Your task to perform on an android device: turn off improve location accuracy Image 0: 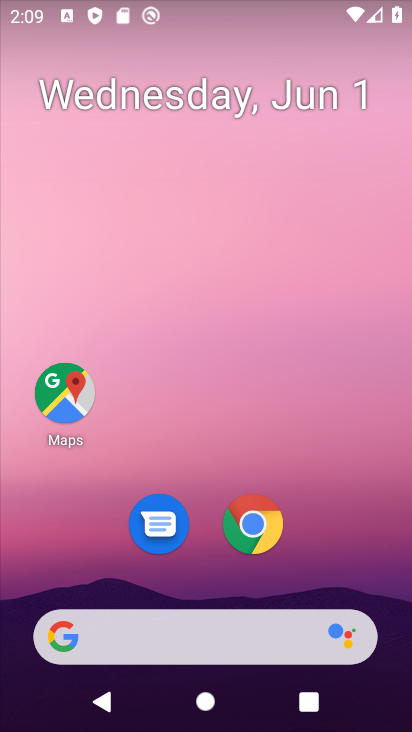
Step 0: drag from (336, 539) to (284, 63)
Your task to perform on an android device: turn off improve location accuracy Image 1: 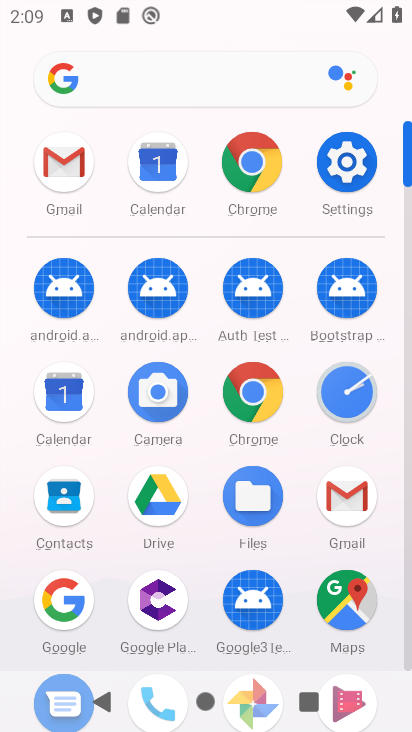
Step 1: click (348, 159)
Your task to perform on an android device: turn off improve location accuracy Image 2: 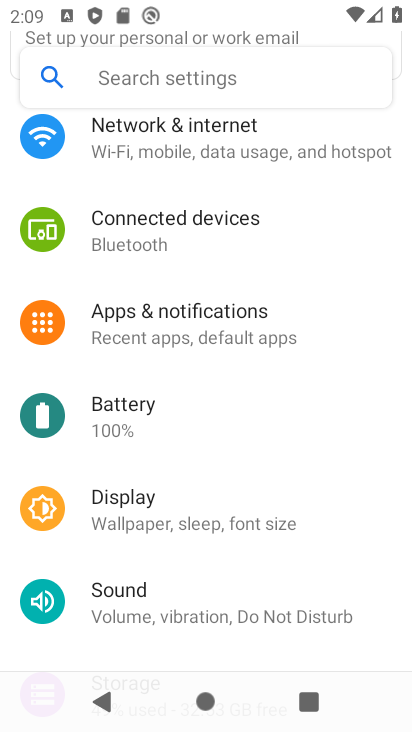
Step 2: drag from (276, 542) to (242, 184)
Your task to perform on an android device: turn off improve location accuracy Image 3: 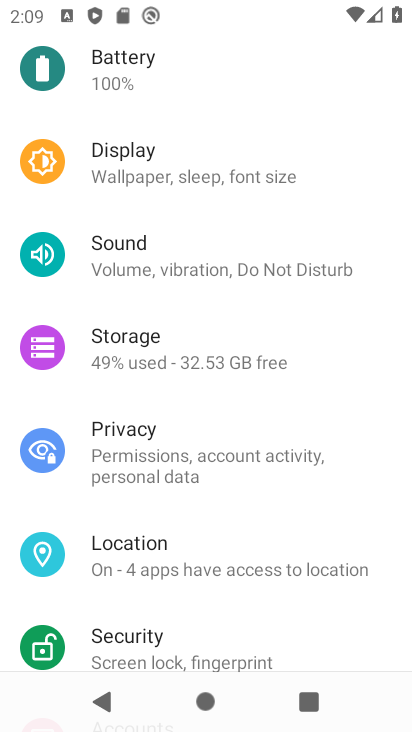
Step 3: click (213, 539)
Your task to perform on an android device: turn off improve location accuracy Image 4: 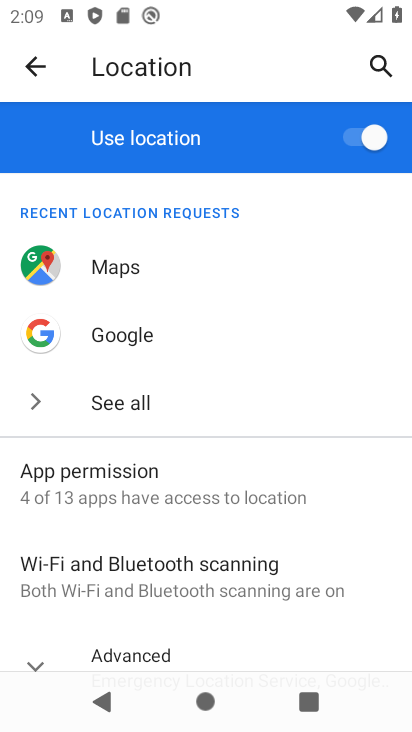
Step 4: drag from (236, 503) to (225, 261)
Your task to perform on an android device: turn off improve location accuracy Image 5: 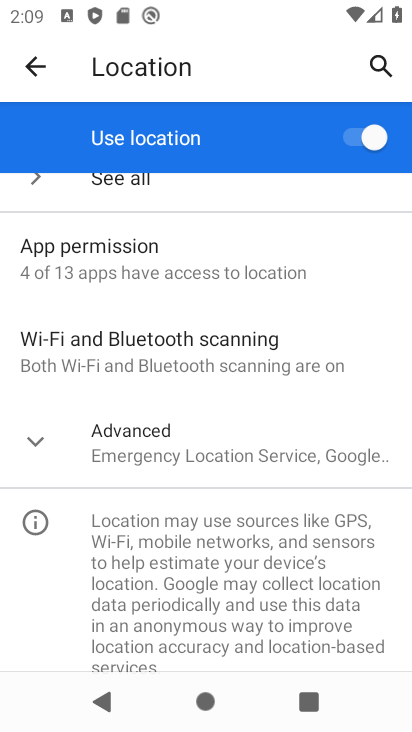
Step 5: click (37, 437)
Your task to perform on an android device: turn off improve location accuracy Image 6: 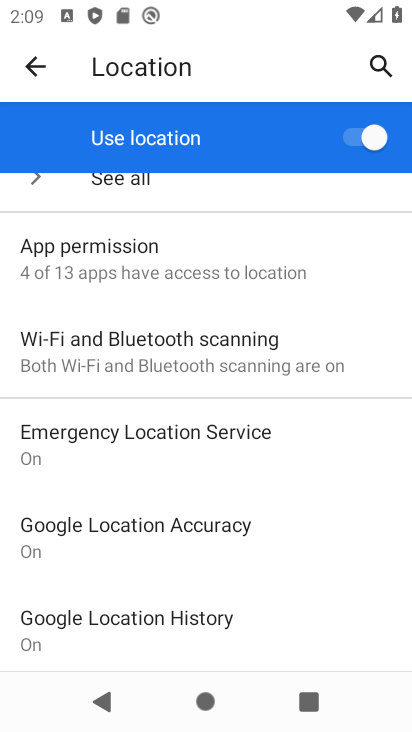
Step 6: click (213, 544)
Your task to perform on an android device: turn off improve location accuracy Image 7: 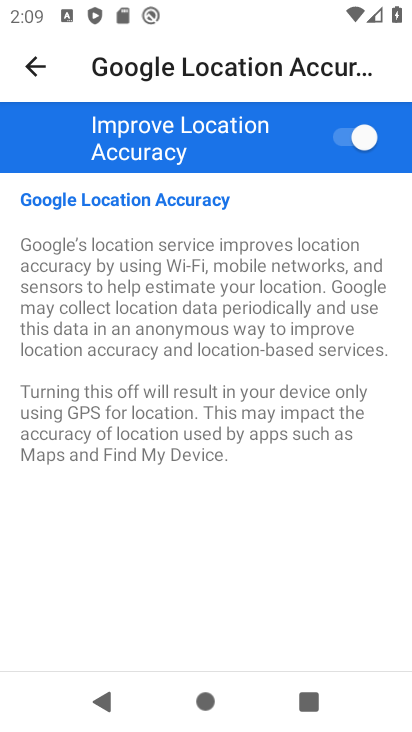
Step 7: click (363, 149)
Your task to perform on an android device: turn off improve location accuracy Image 8: 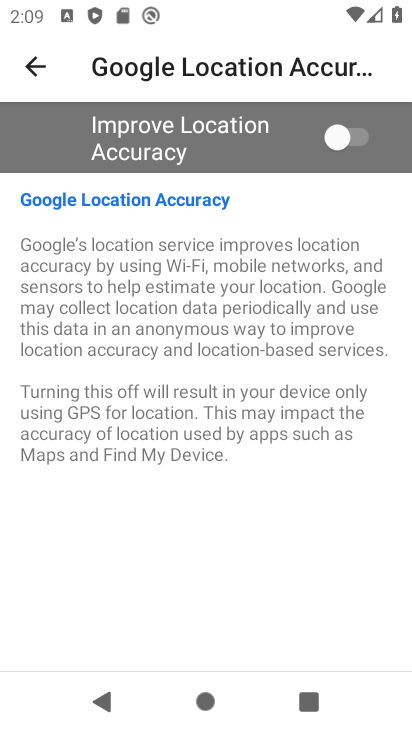
Step 8: task complete